Your task to perform on an android device: see creations saved in the google photos Image 0: 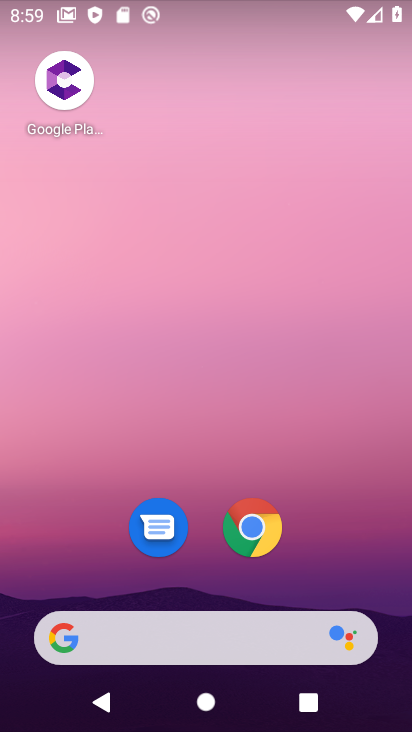
Step 0: drag from (389, 693) to (273, 127)
Your task to perform on an android device: see creations saved in the google photos Image 1: 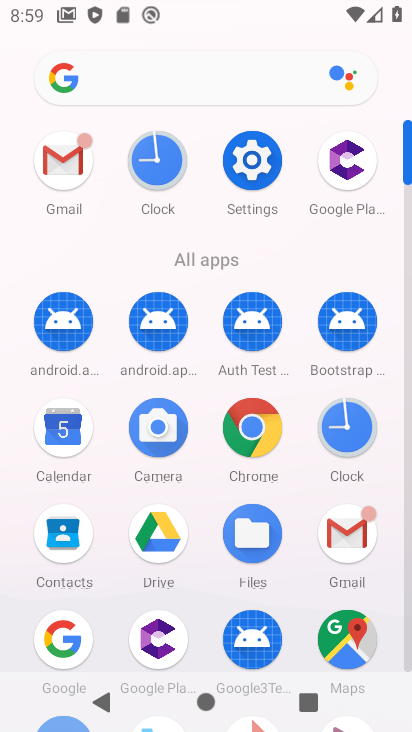
Step 1: click (406, 667)
Your task to perform on an android device: see creations saved in the google photos Image 2: 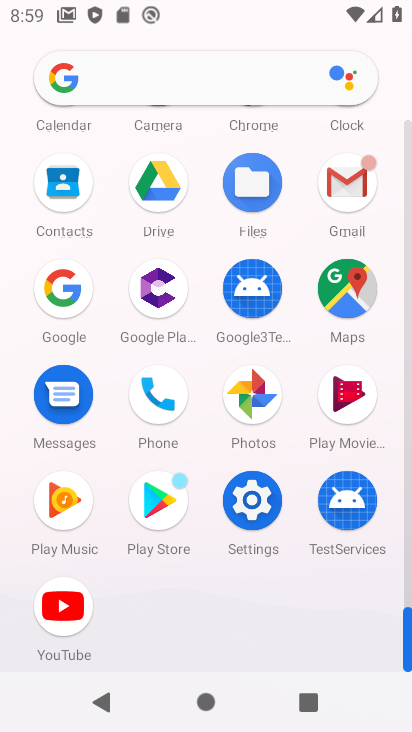
Step 2: drag from (408, 636) to (410, 582)
Your task to perform on an android device: see creations saved in the google photos Image 3: 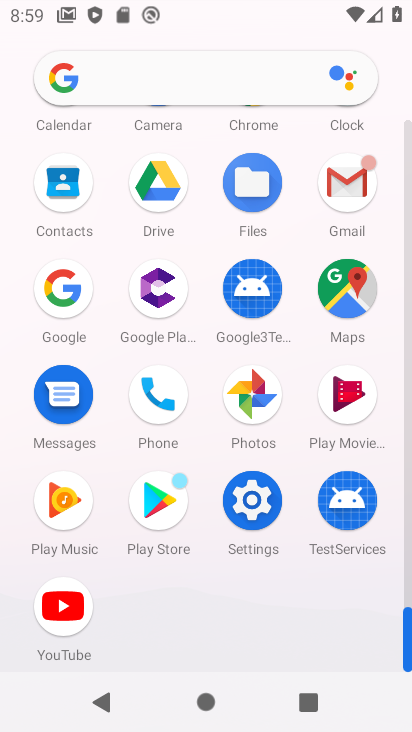
Step 3: click (410, 582)
Your task to perform on an android device: see creations saved in the google photos Image 4: 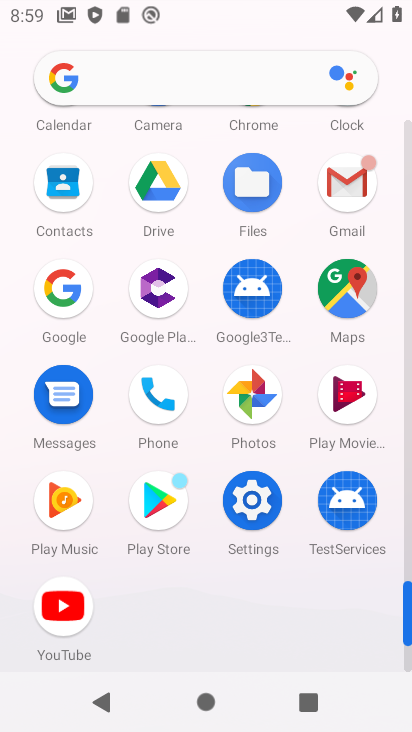
Step 4: click (410, 582)
Your task to perform on an android device: see creations saved in the google photos Image 5: 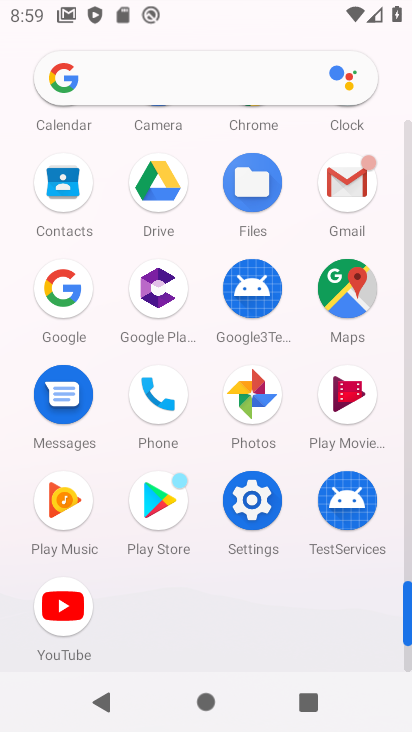
Step 5: click (410, 539)
Your task to perform on an android device: see creations saved in the google photos Image 6: 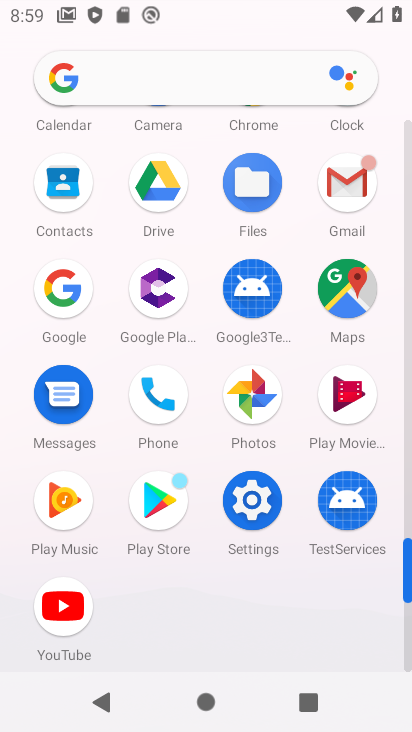
Step 6: click (408, 415)
Your task to perform on an android device: see creations saved in the google photos Image 7: 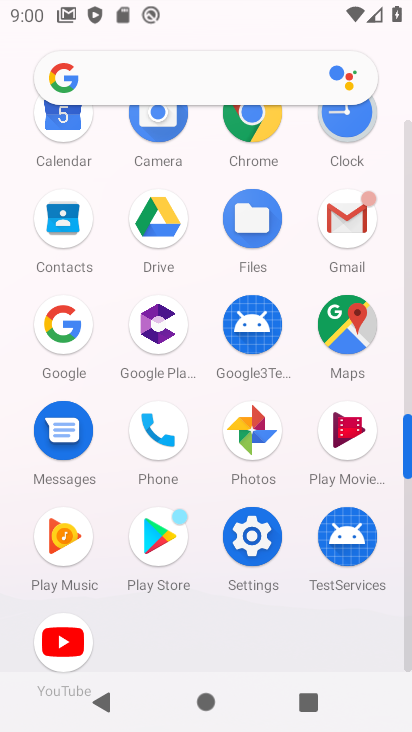
Step 7: click (407, 349)
Your task to perform on an android device: see creations saved in the google photos Image 8: 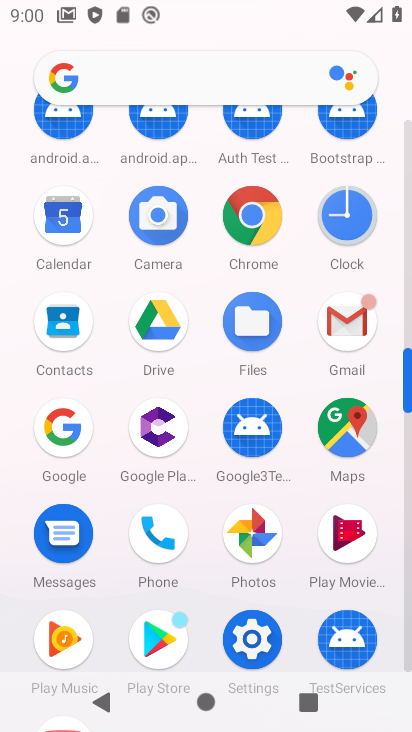
Step 8: click (407, 318)
Your task to perform on an android device: see creations saved in the google photos Image 9: 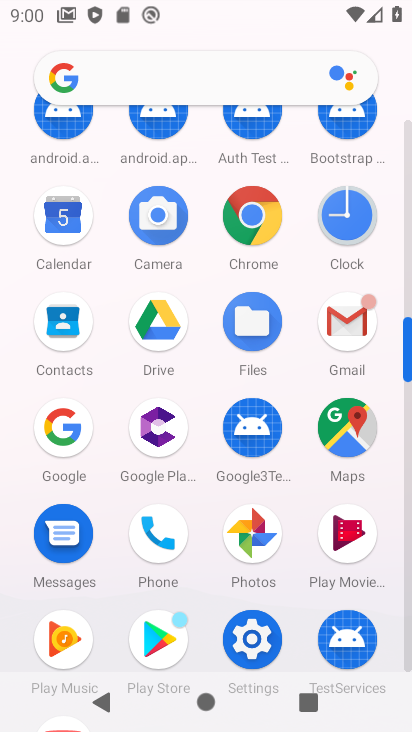
Step 9: click (266, 540)
Your task to perform on an android device: see creations saved in the google photos Image 10: 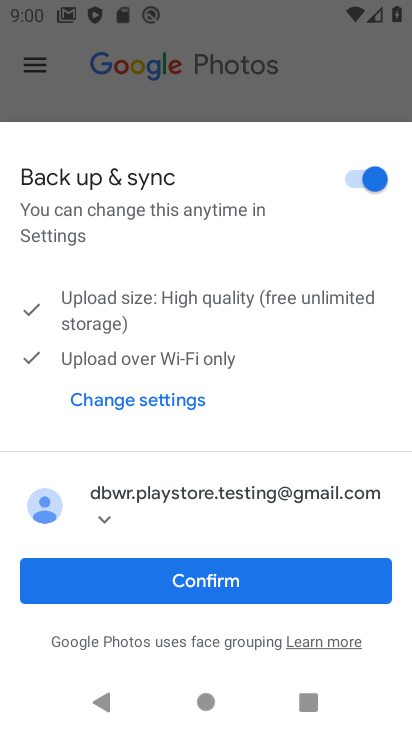
Step 10: click (216, 582)
Your task to perform on an android device: see creations saved in the google photos Image 11: 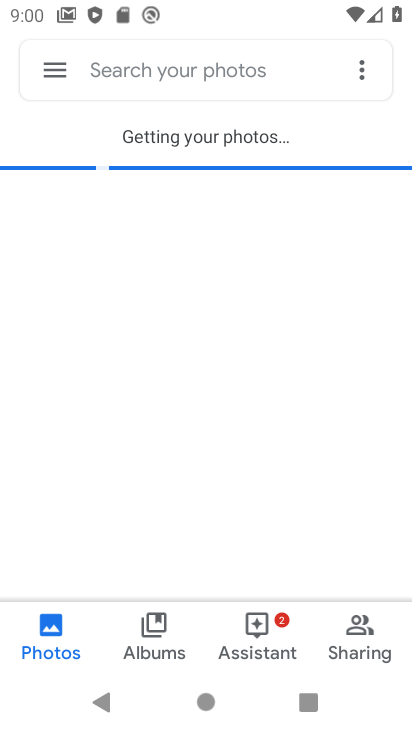
Step 11: click (190, 76)
Your task to perform on an android device: see creations saved in the google photos Image 12: 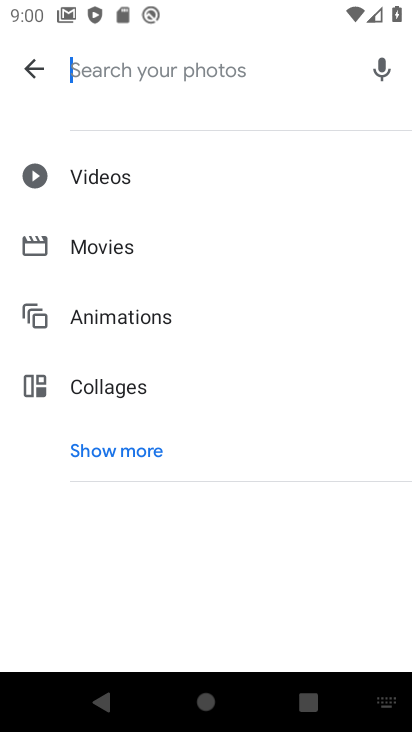
Step 12: click (138, 453)
Your task to perform on an android device: see creations saved in the google photos Image 13: 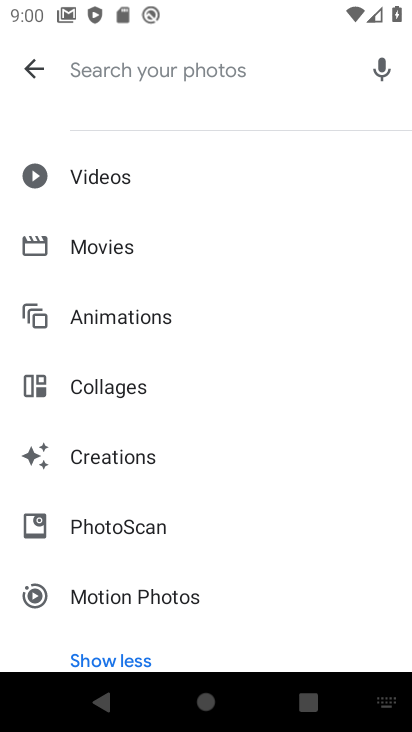
Step 13: click (138, 453)
Your task to perform on an android device: see creations saved in the google photos Image 14: 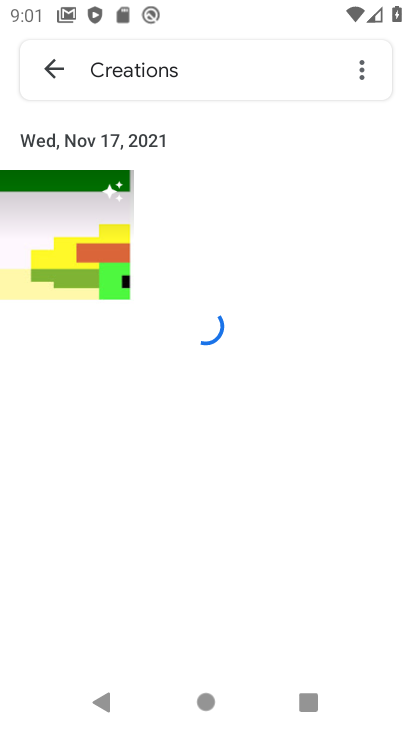
Step 14: task complete